Your task to perform on an android device: Open accessibility settings Image 0: 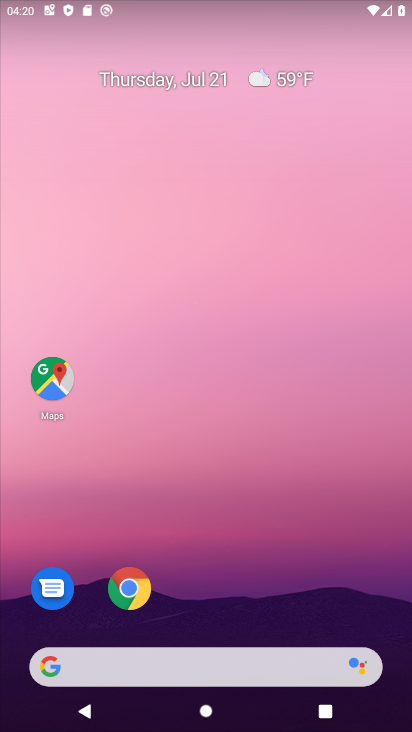
Step 0: drag from (223, 599) to (257, 69)
Your task to perform on an android device: Open accessibility settings Image 1: 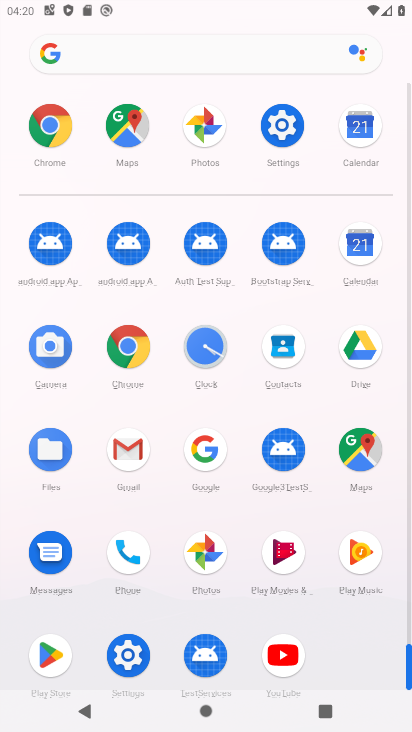
Step 1: click (127, 655)
Your task to perform on an android device: Open accessibility settings Image 2: 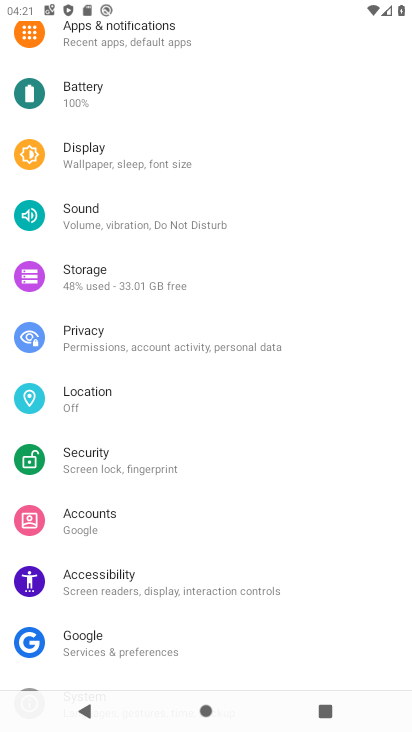
Step 2: click (117, 587)
Your task to perform on an android device: Open accessibility settings Image 3: 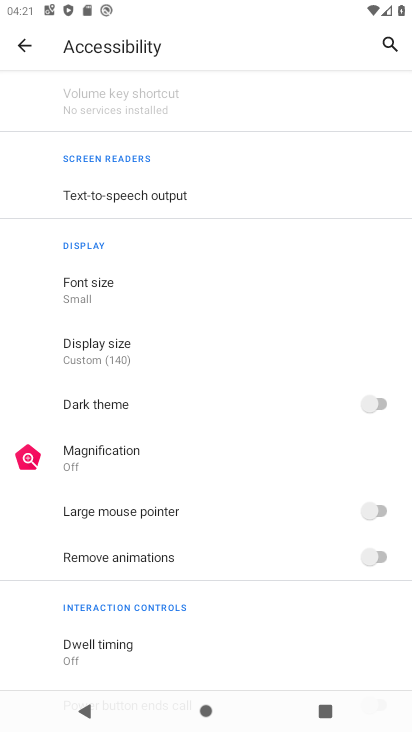
Step 3: task complete